Your task to perform on an android device: delete the emails in spam in the gmail app Image 0: 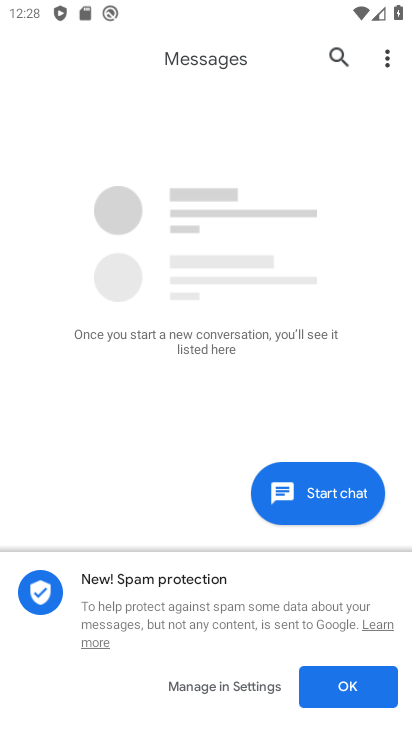
Step 0: press home button
Your task to perform on an android device: delete the emails in spam in the gmail app Image 1: 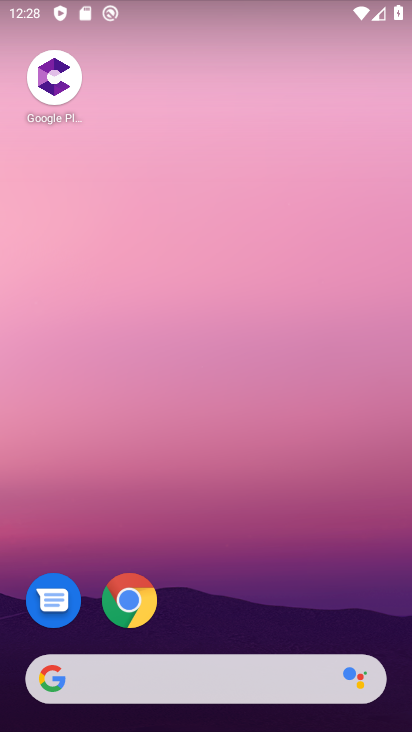
Step 1: drag from (295, 597) to (163, 6)
Your task to perform on an android device: delete the emails in spam in the gmail app Image 2: 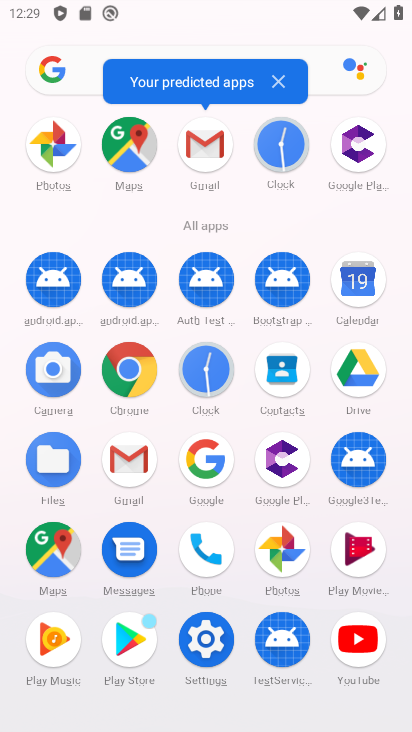
Step 2: click (123, 470)
Your task to perform on an android device: delete the emails in spam in the gmail app Image 3: 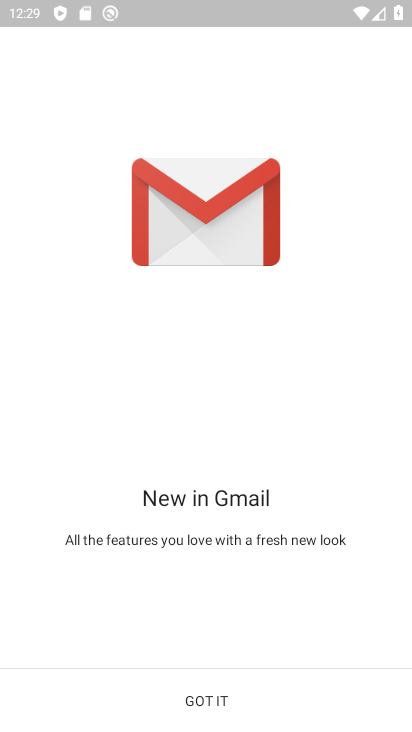
Step 3: click (183, 719)
Your task to perform on an android device: delete the emails in spam in the gmail app Image 4: 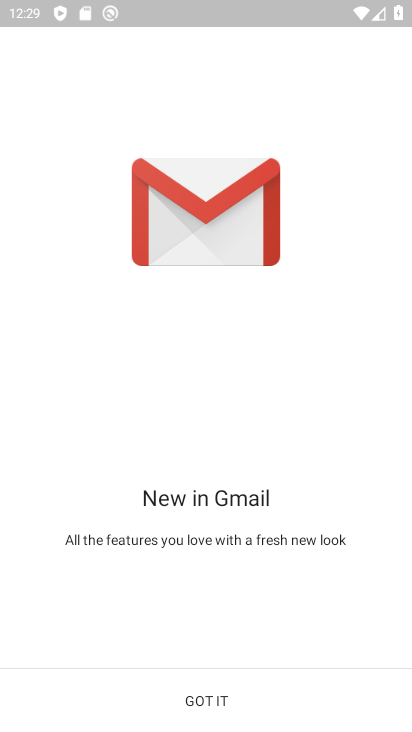
Step 4: click (183, 719)
Your task to perform on an android device: delete the emails in spam in the gmail app Image 5: 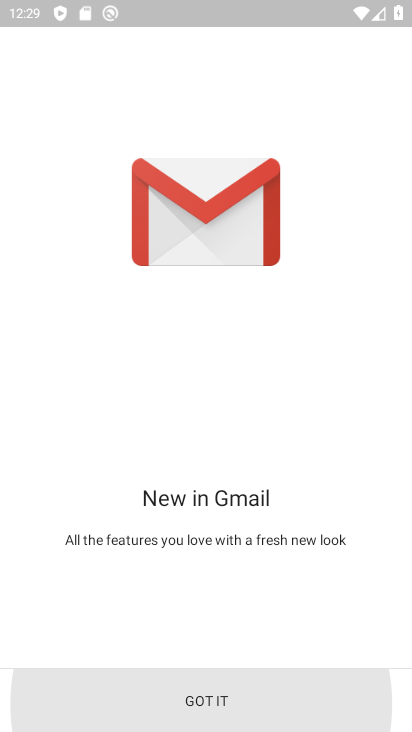
Step 5: click (183, 719)
Your task to perform on an android device: delete the emails in spam in the gmail app Image 6: 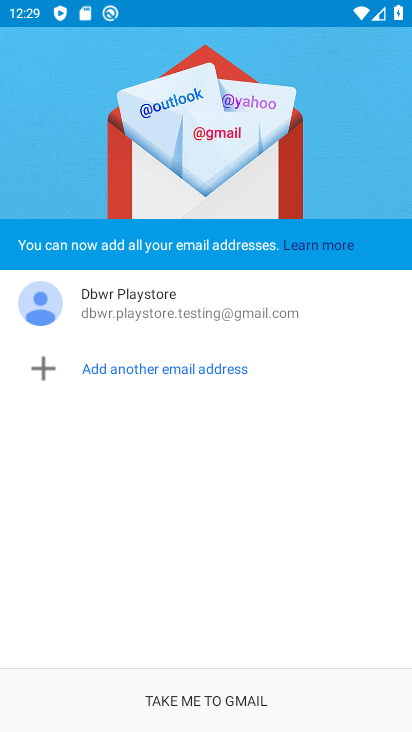
Step 6: click (183, 719)
Your task to perform on an android device: delete the emails in spam in the gmail app Image 7: 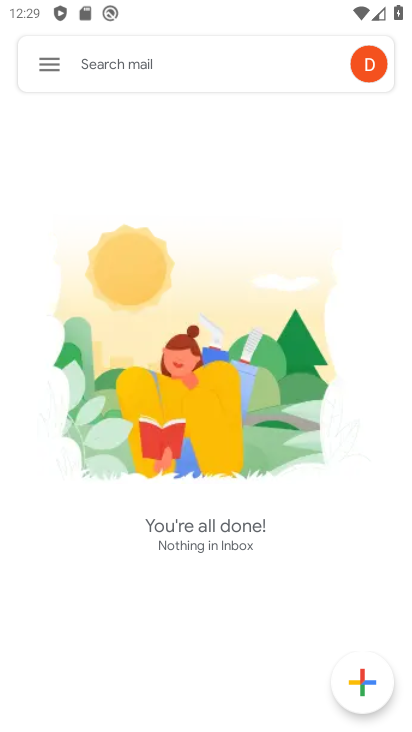
Step 7: task complete